Your task to perform on an android device: set the stopwatch Image 0: 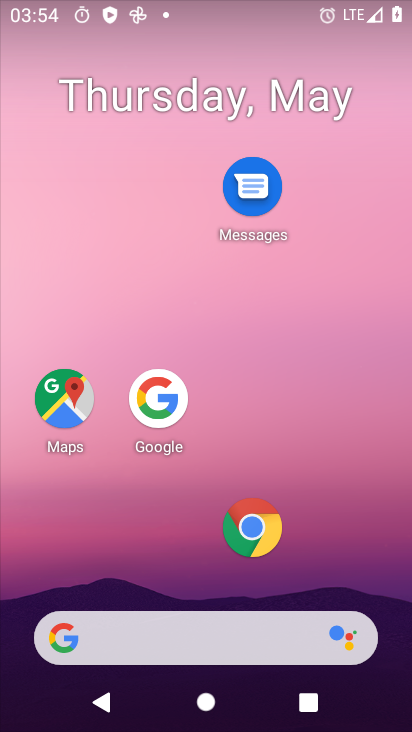
Step 0: drag from (202, 590) to (204, 165)
Your task to perform on an android device: set the stopwatch Image 1: 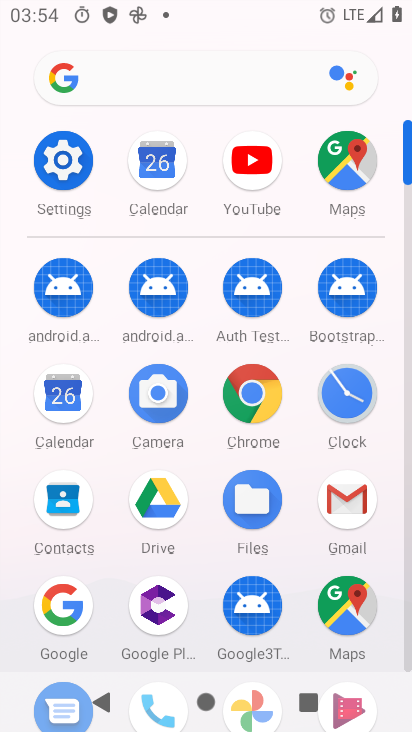
Step 1: click (348, 401)
Your task to perform on an android device: set the stopwatch Image 2: 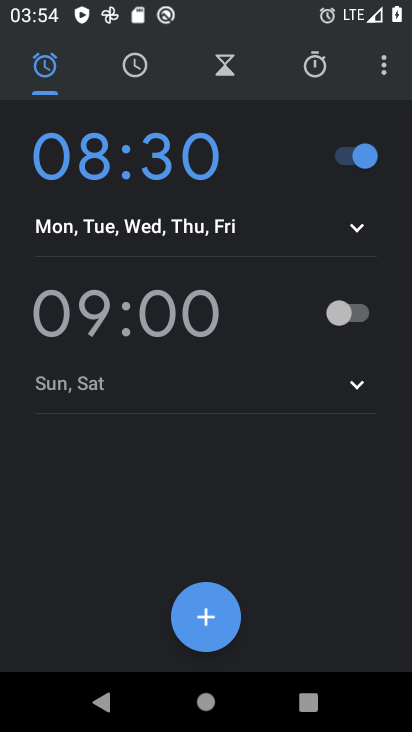
Step 2: click (322, 78)
Your task to perform on an android device: set the stopwatch Image 3: 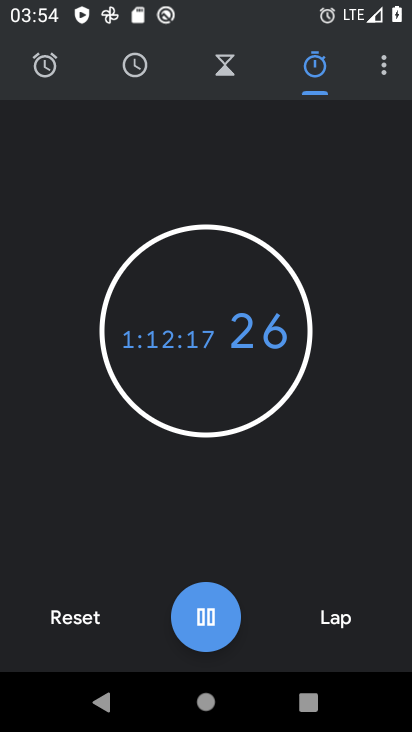
Step 3: click (69, 647)
Your task to perform on an android device: set the stopwatch Image 4: 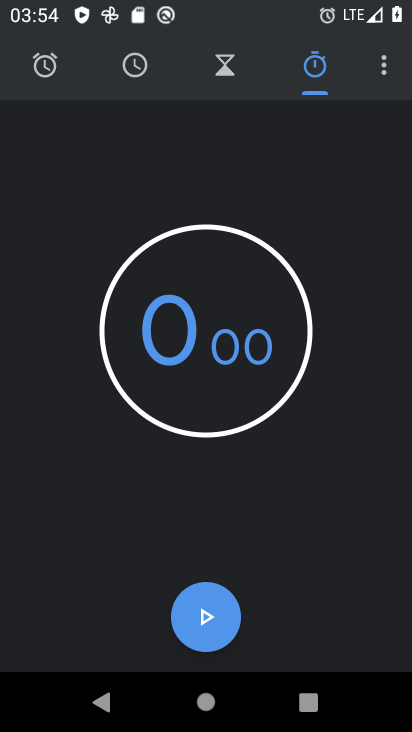
Step 4: click (196, 611)
Your task to perform on an android device: set the stopwatch Image 5: 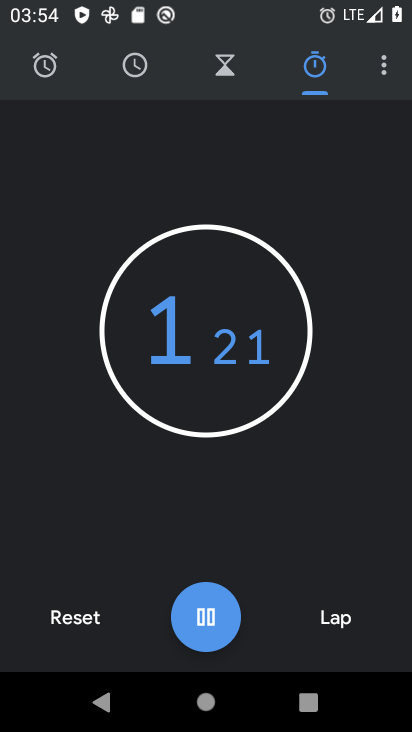
Step 5: task complete